Your task to perform on an android device: turn off notifications settings in the gmail app Image 0: 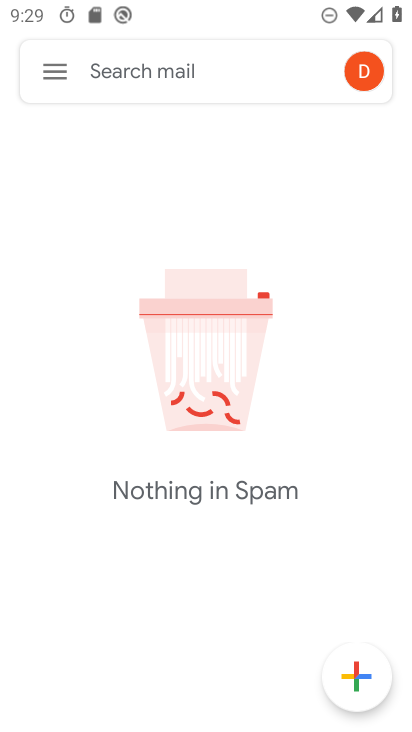
Step 0: click (43, 64)
Your task to perform on an android device: turn off notifications settings in the gmail app Image 1: 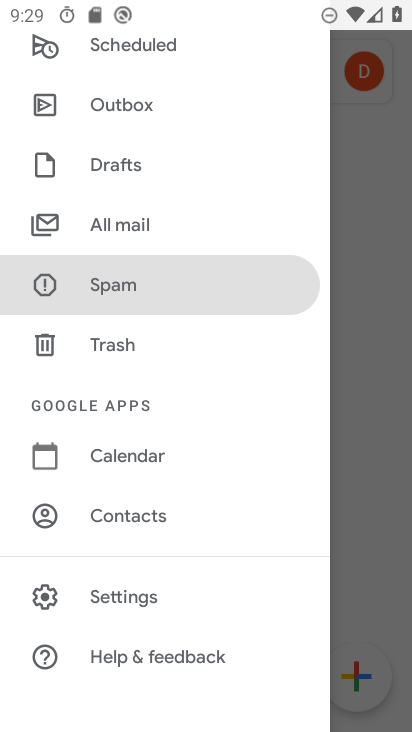
Step 1: click (125, 606)
Your task to perform on an android device: turn off notifications settings in the gmail app Image 2: 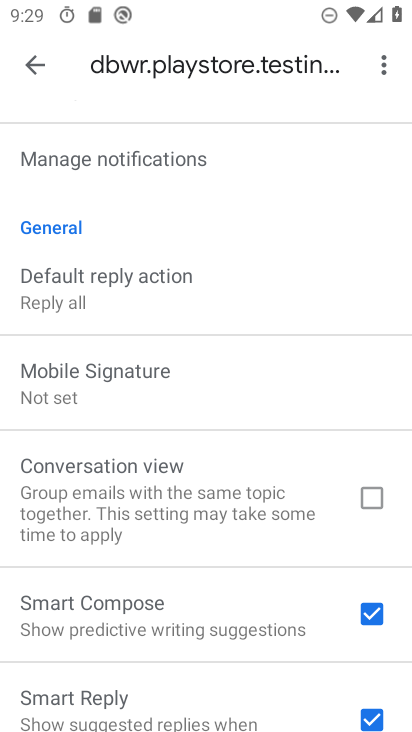
Step 2: drag from (155, 273) to (150, 593)
Your task to perform on an android device: turn off notifications settings in the gmail app Image 3: 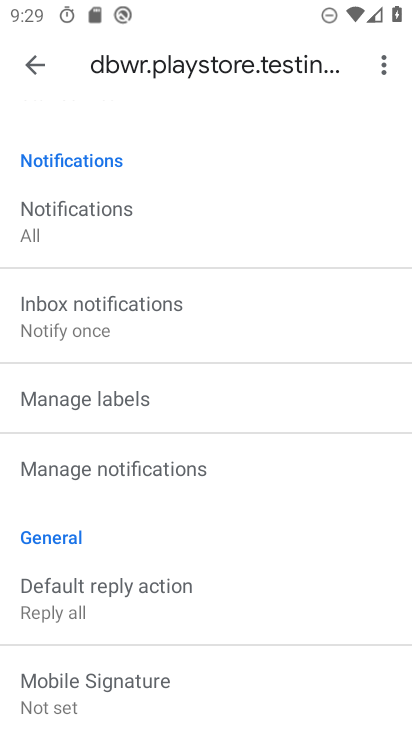
Step 3: click (84, 466)
Your task to perform on an android device: turn off notifications settings in the gmail app Image 4: 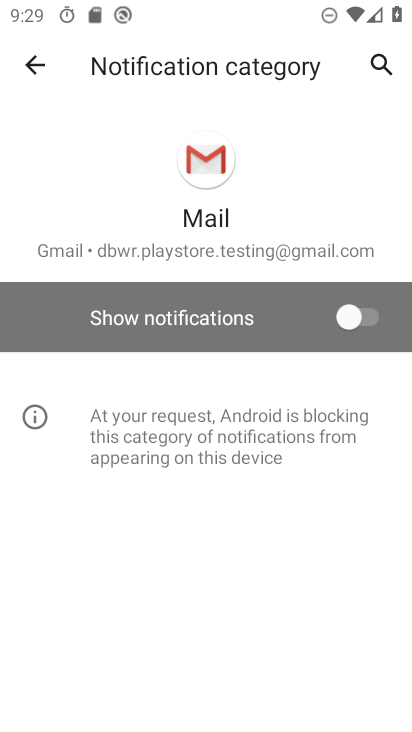
Step 4: task complete